Your task to perform on an android device: empty trash in google photos Image 0: 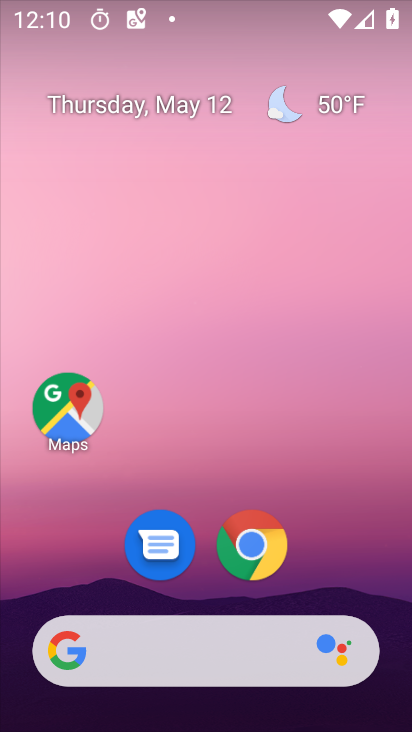
Step 0: drag from (281, 650) to (256, 91)
Your task to perform on an android device: empty trash in google photos Image 1: 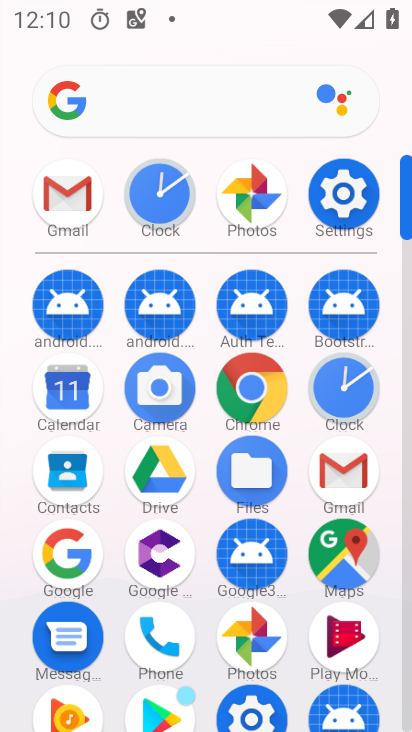
Step 1: click (266, 632)
Your task to perform on an android device: empty trash in google photos Image 2: 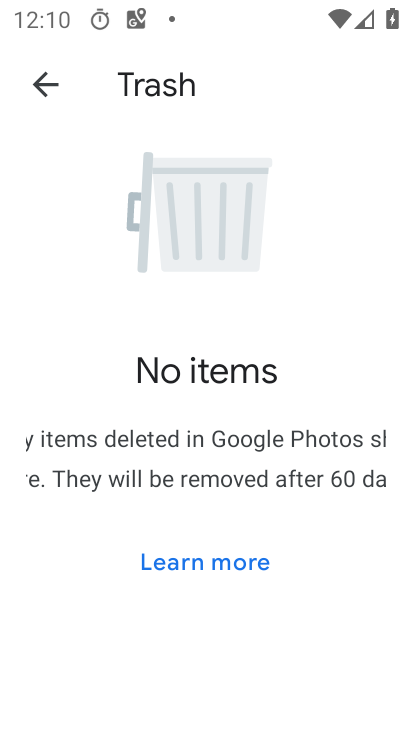
Step 2: task complete